Your task to perform on an android device: Go to accessibility settings Image 0: 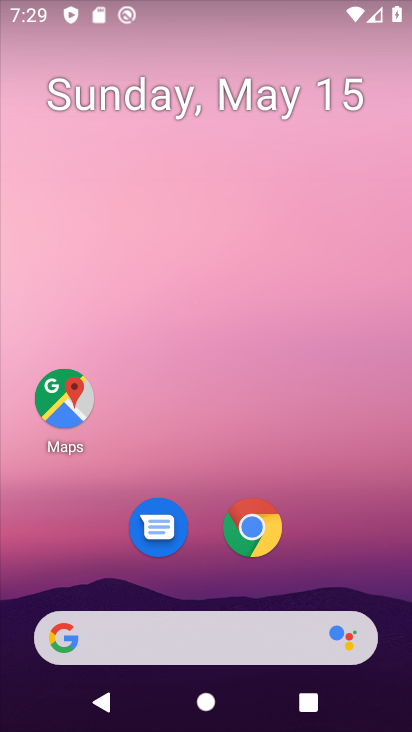
Step 0: drag from (244, 344) to (315, 110)
Your task to perform on an android device: Go to accessibility settings Image 1: 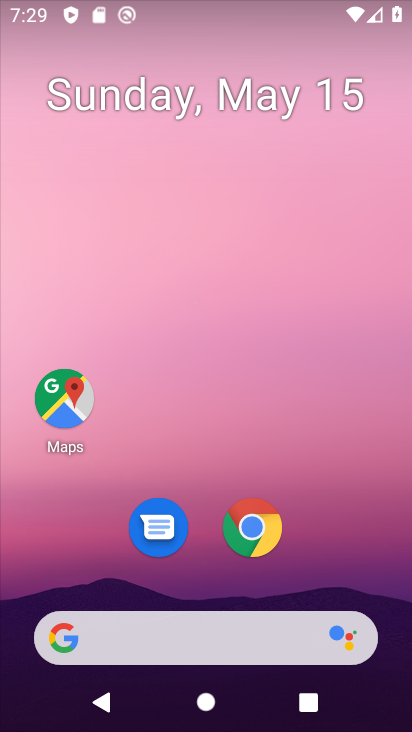
Step 1: drag from (207, 617) to (347, 154)
Your task to perform on an android device: Go to accessibility settings Image 2: 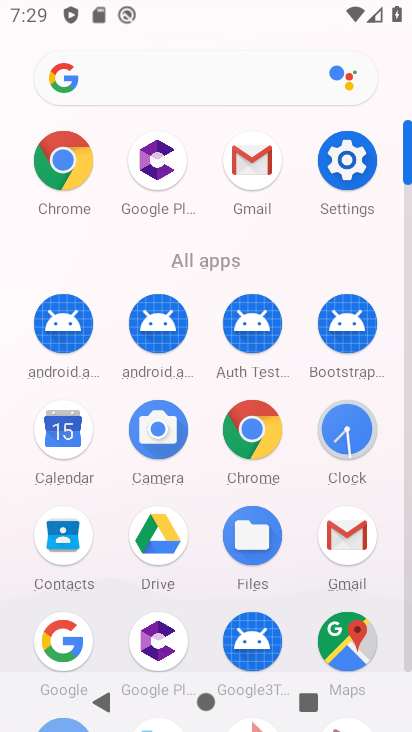
Step 2: click (347, 154)
Your task to perform on an android device: Go to accessibility settings Image 3: 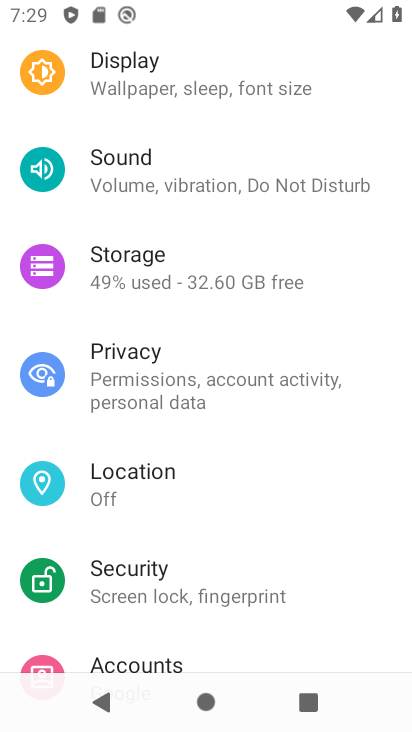
Step 3: drag from (266, 583) to (392, 64)
Your task to perform on an android device: Go to accessibility settings Image 4: 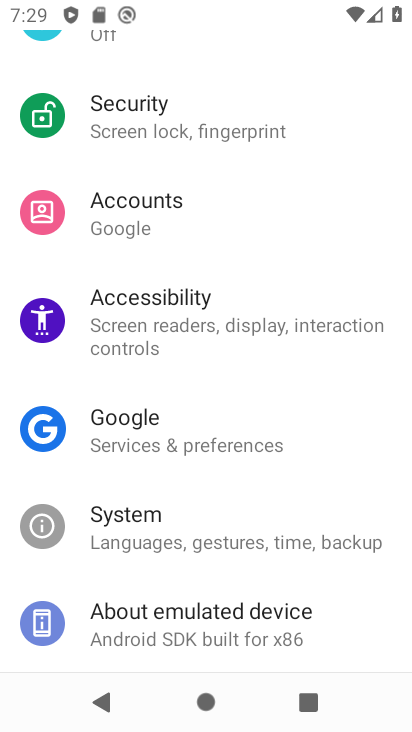
Step 4: click (158, 300)
Your task to perform on an android device: Go to accessibility settings Image 5: 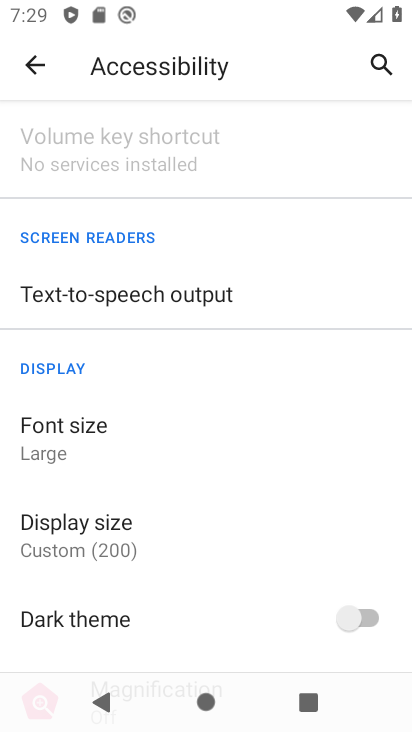
Step 5: task complete